Your task to perform on an android device: delete a single message in the gmail app Image 0: 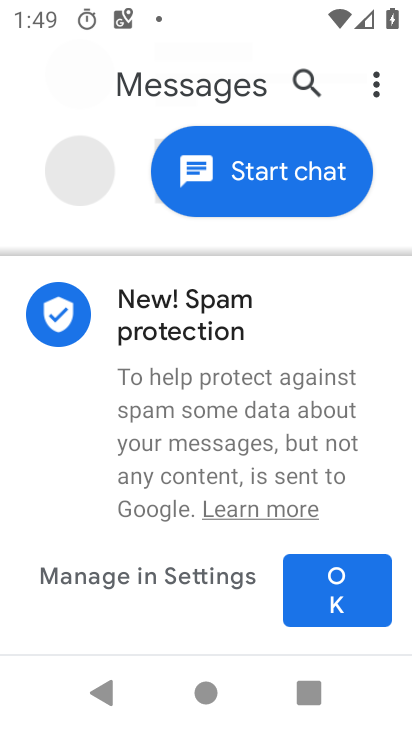
Step 0: press back button
Your task to perform on an android device: delete a single message in the gmail app Image 1: 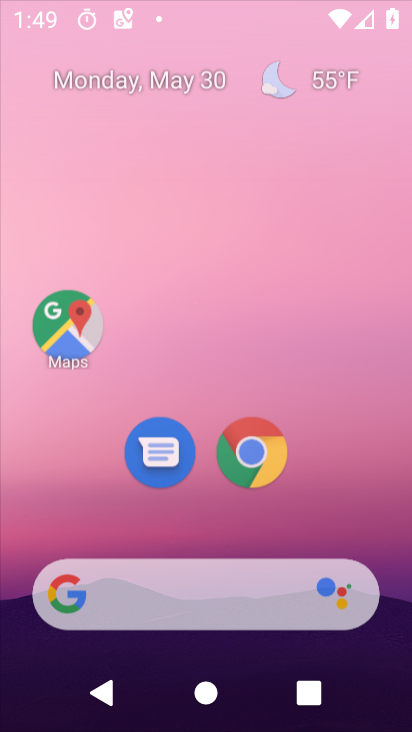
Step 1: press home button
Your task to perform on an android device: delete a single message in the gmail app Image 2: 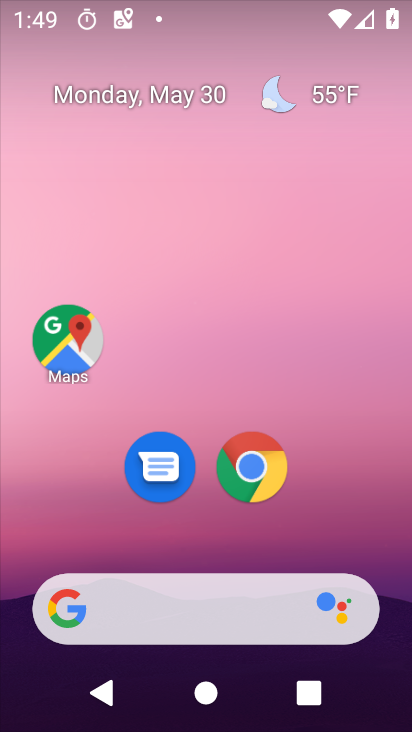
Step 2: drag from (395, 691) to (407, 130)
Your task to perform on an android device: delete a single message in the gmail app Image 3: 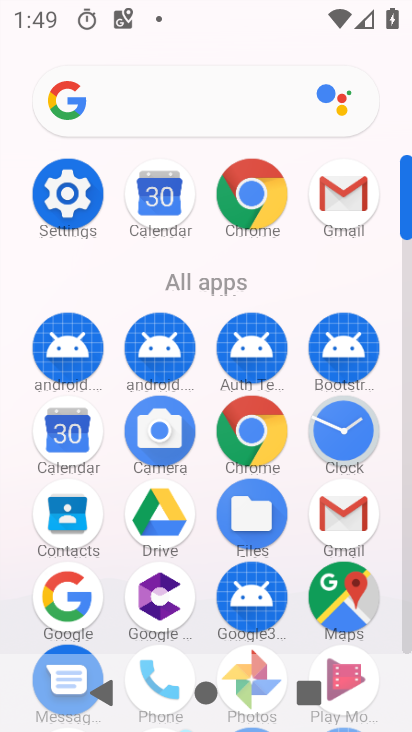
Step 3: click (342, 502)
Your task to perform on an android device: delete a single message in the gmail app Image 4: 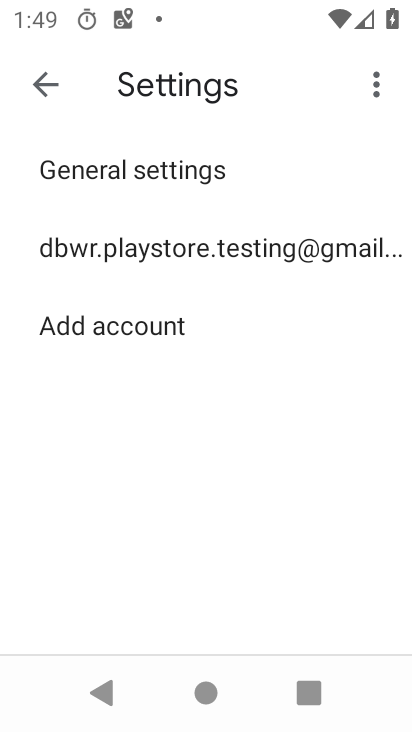
Step 4: click (43, 85)
Your task to perform on an android device: delete a single message in the gmail app Image 5: 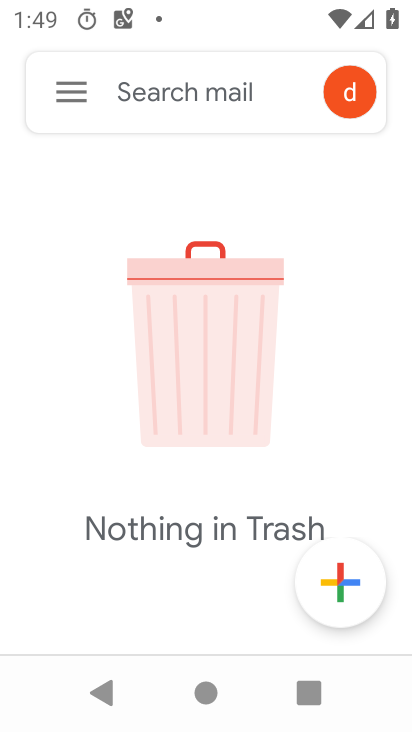
Step 5: click (76, 88)
Your task to perform on an android device: delete a single message in the gmail app Image 6: 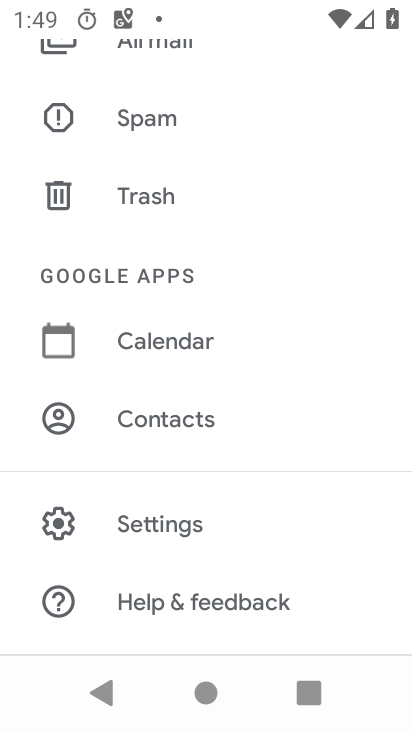
Step 6: drag from (309, 93) to (322, 605)
Your task to perform on an android device: delete a single message in the gmail app Image 7: 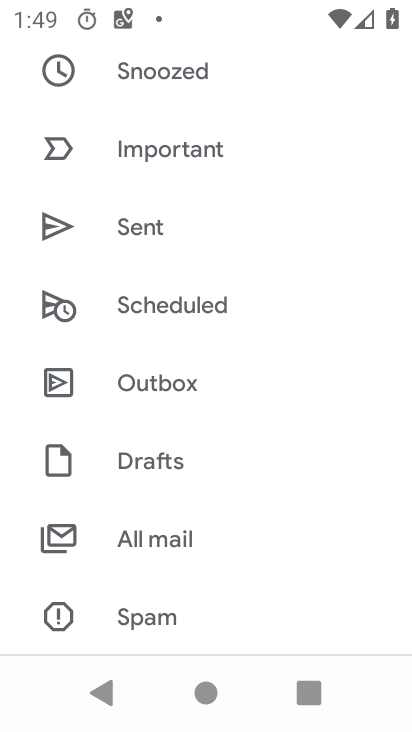
Step 7: drag from (336, 116) to (383, 582)
Your task to perform on an android device: delete a single message in the gmail app Image 8: 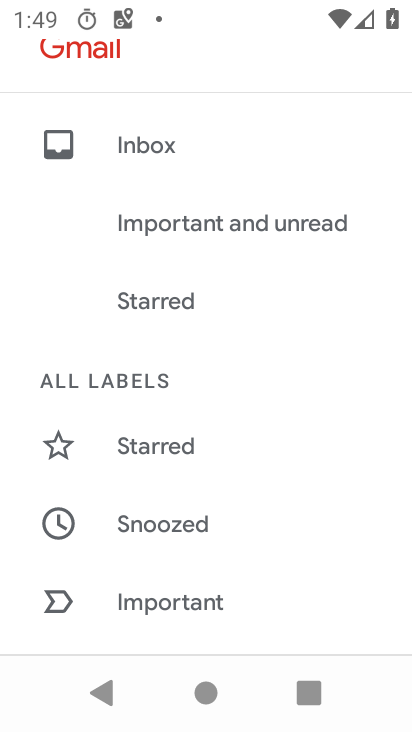
Step 8: drag from (372, 155) to (370, 621)
Your task to perform on an android device: delete a single message in the gmail app Image 9: 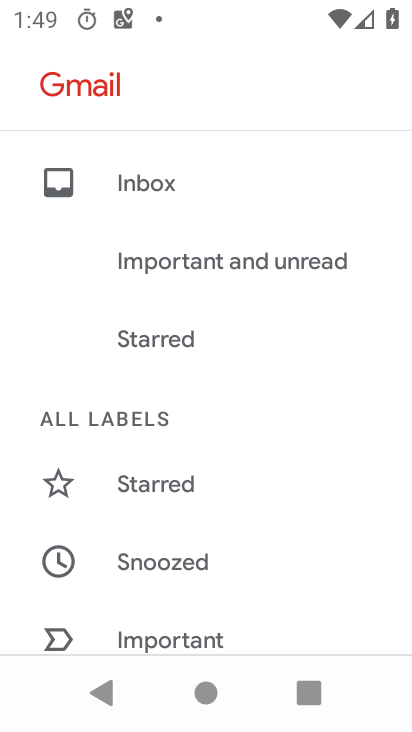
Step 9: drag from (390, 334) to (411, 540)
Your task to perform on an android device: delete a single message in the gmail app Image 10: 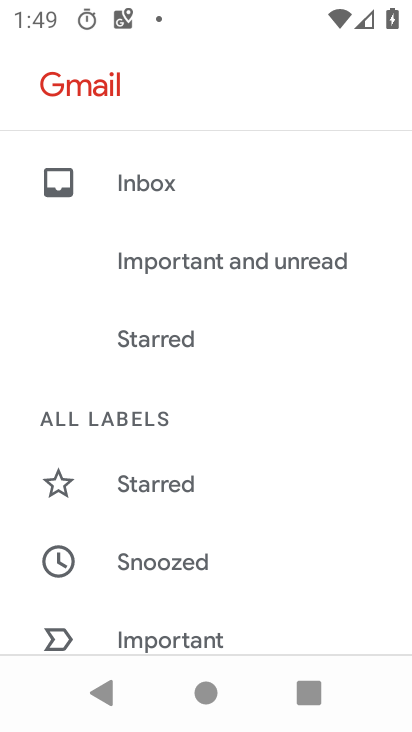
Step 10: click (167, 178)
Your task to perform on an android device: delete a single message in the gmail app Image 11: 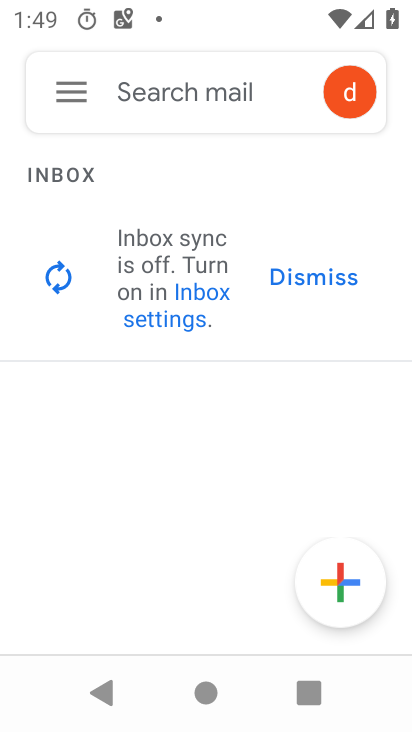
Step 11: task complete